Your task to perform on an android device: Open Google Chrome and click the shortcut for Amazon.com Image 0: 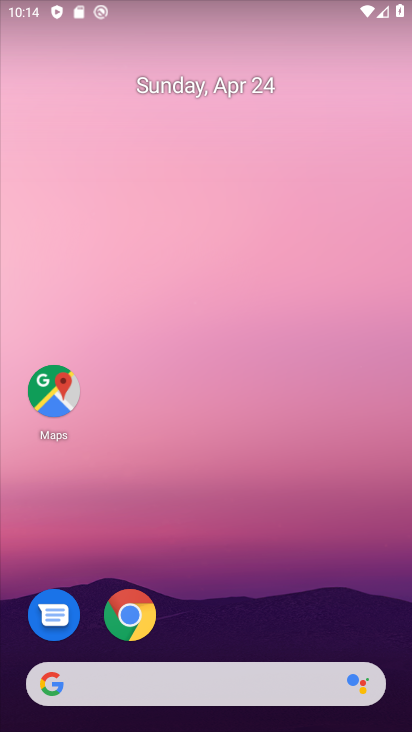
Step 0: click (134, 610)
Your task to perform on an android device: Open Google Chrome and click the shortcut for Amazon.com Image 1: 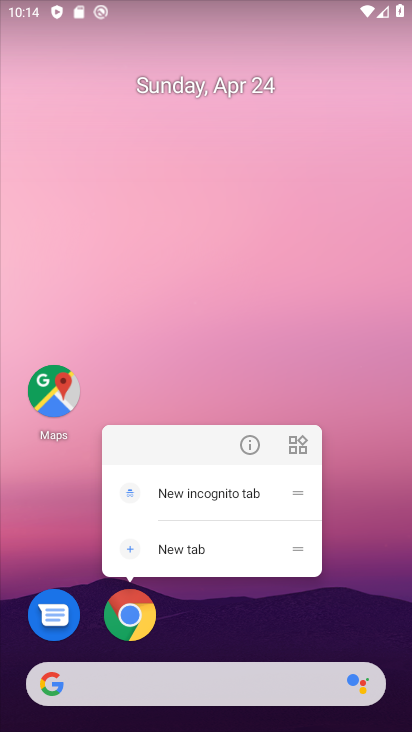
Step 1: click (213, 640)
Your task to perform on an android device: Open Google Chrome and click the shortcut for Amazon.com Image 2: 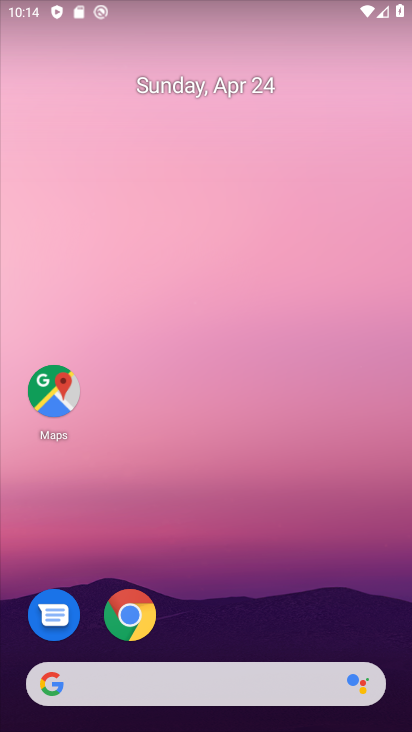
Step 2: drag from (274, 645) to (331, 304)
Your task to perform on an android device: Open Google Chrome and click the shortcut for Amazon.com Image 3: 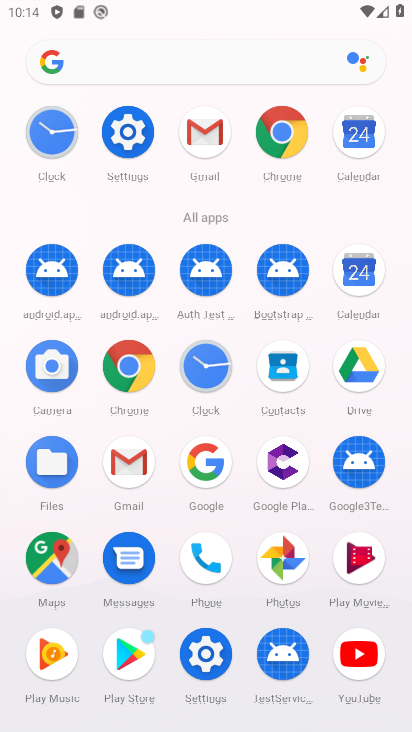
Step 3: click (112, 366)
Your task to perform on an android device: Open Google Chrome and click the shortcut for Amazon.com Image 4: 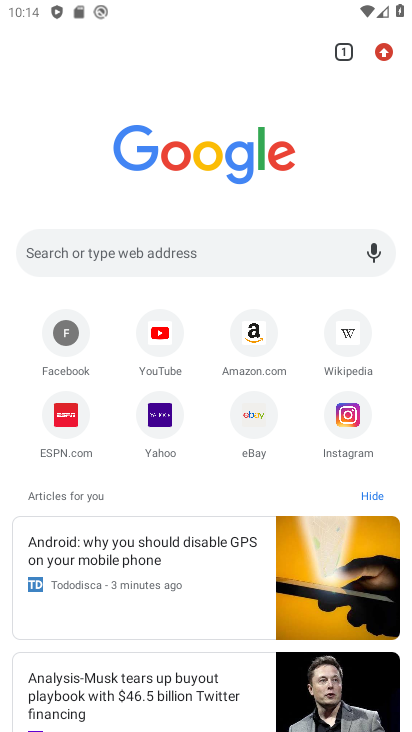
Step 4: click (255, 338)
Your task to perform on an android device: Open Google Chrome and click the shortcut for Amazon.com Image 5: 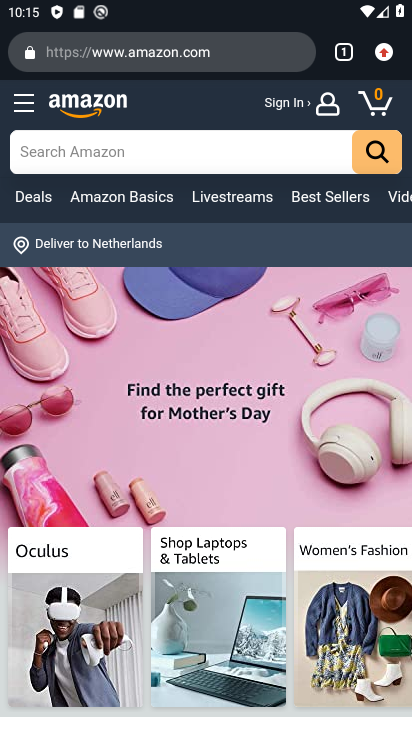
Step 5: task complete